Your task to perform on an android device: Go to Google maps Image 0: 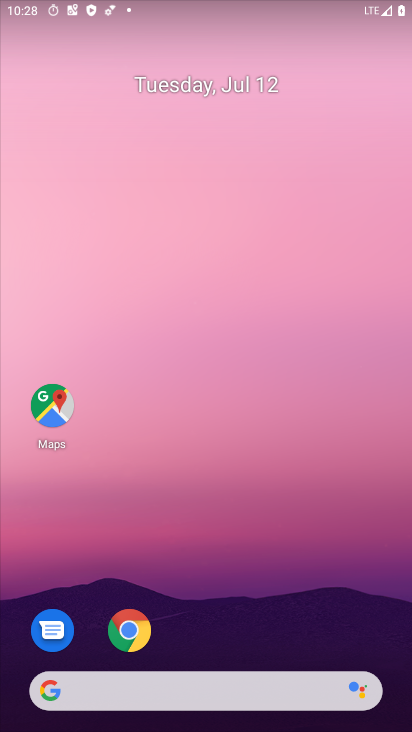
Step 0: click (55, 411)
Your task to perform on an android device: Go to Google maps Image 1: 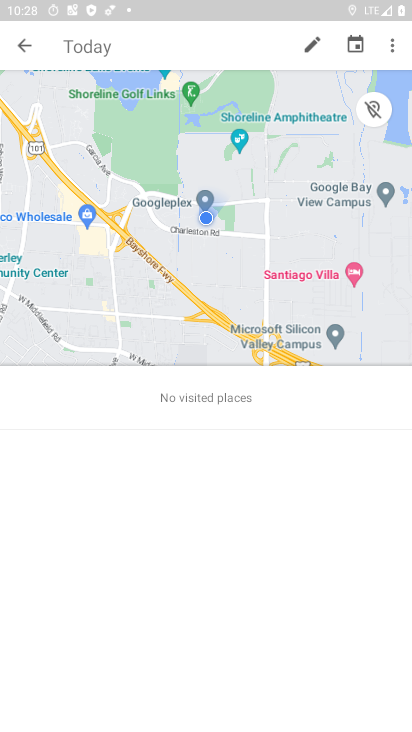
Step 1: task complete